Your task to perform on an android device: Open wifi settings Image 0: 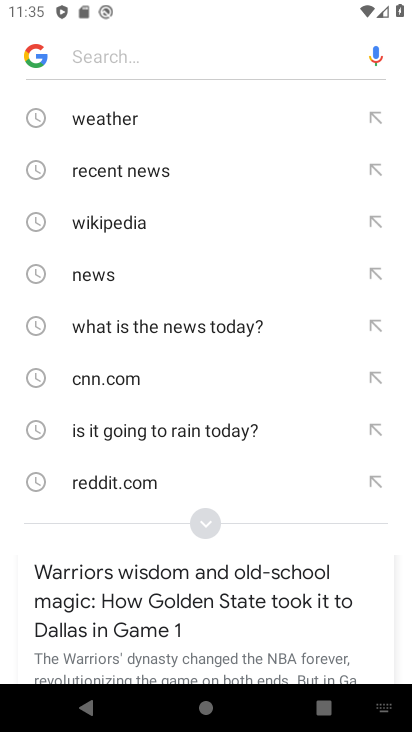
Step 0: press home button
Your task to perform on an android device: Open wifi settings Image 1: 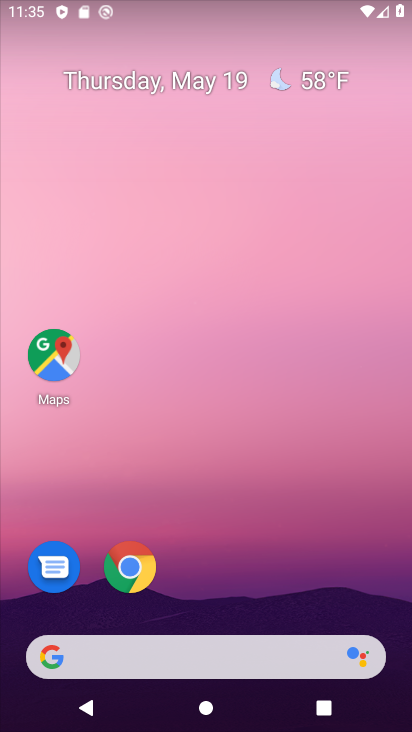
Step 1: drag from (285, 191) to (308, 29)
Your task to perform on an android device: Open wifi settings Image 2: 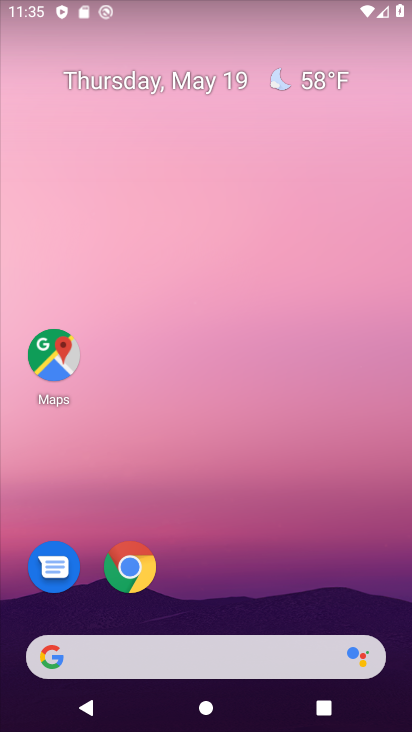
Step 2: drag from (263, 458) to (207, 3)
Your task to perform on an android device: Open wifi settings Image 3: 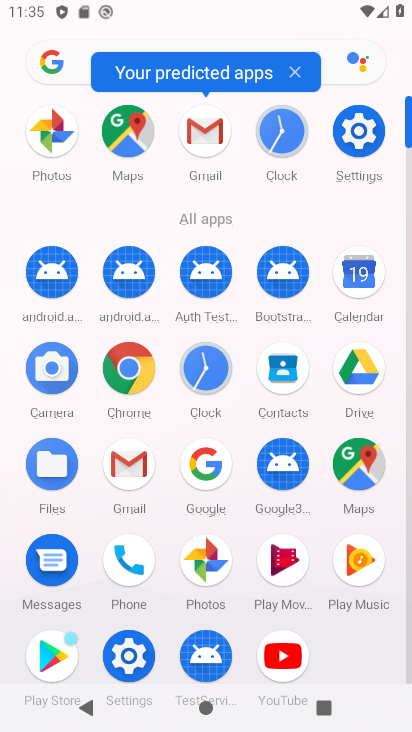
Step 3: click (348, 128)
Your task to perform on an android device: Open wifi settings Image 4: 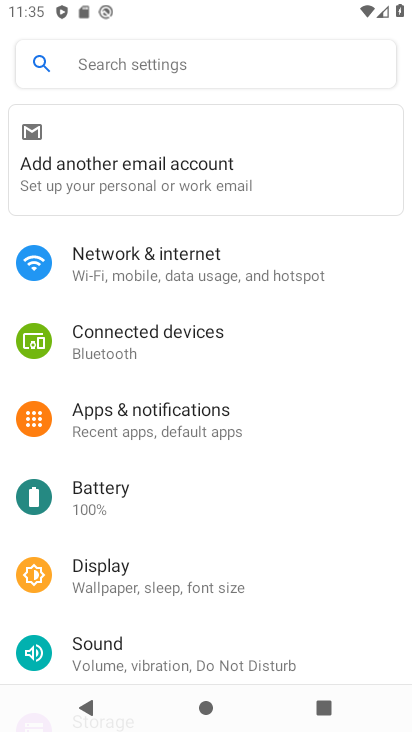
Step 4: task complete